Your task to perform on an android device: Is it going to rain tomorrow? Image 0: 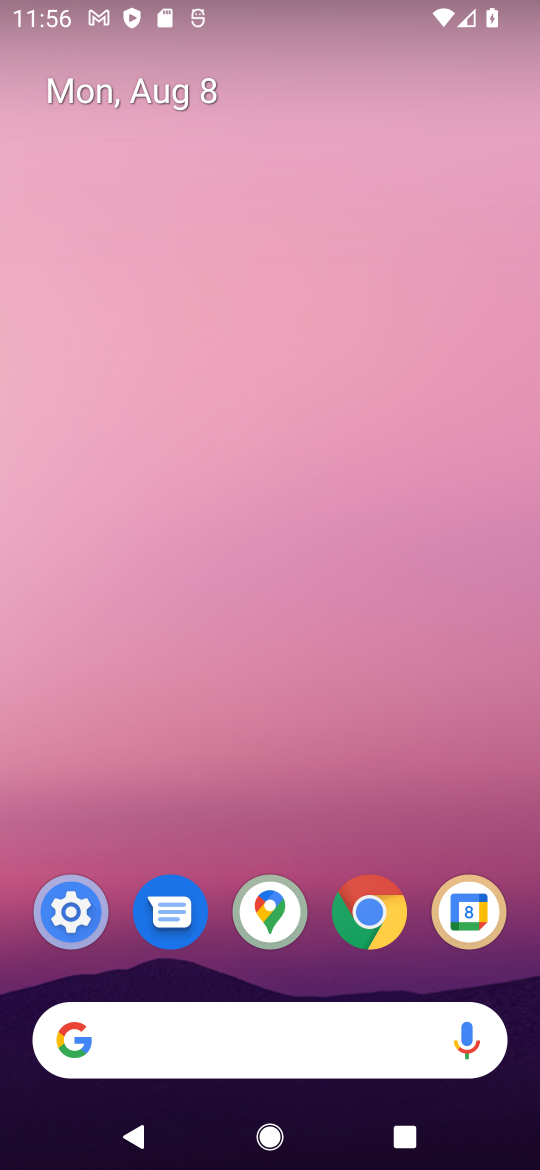
Step 0: click (196, 1028)
Your task to perform on an android device: Is it going to rain tomorrow? Image 1: 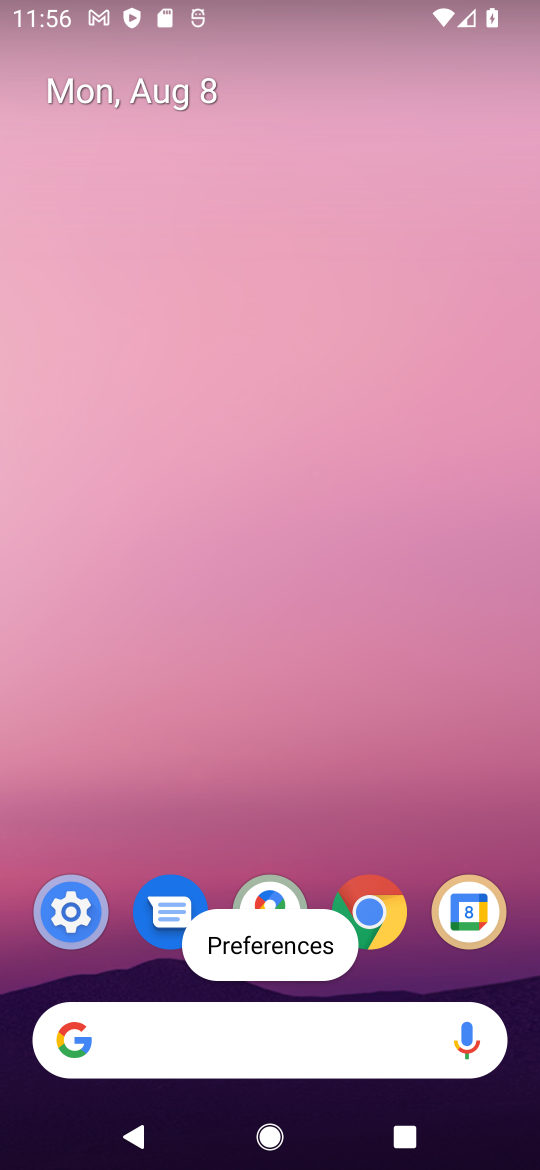
Step 1: click (265, 1048)
Your task to perform on an android device: Is it going to rain tomorrow? Image 2: 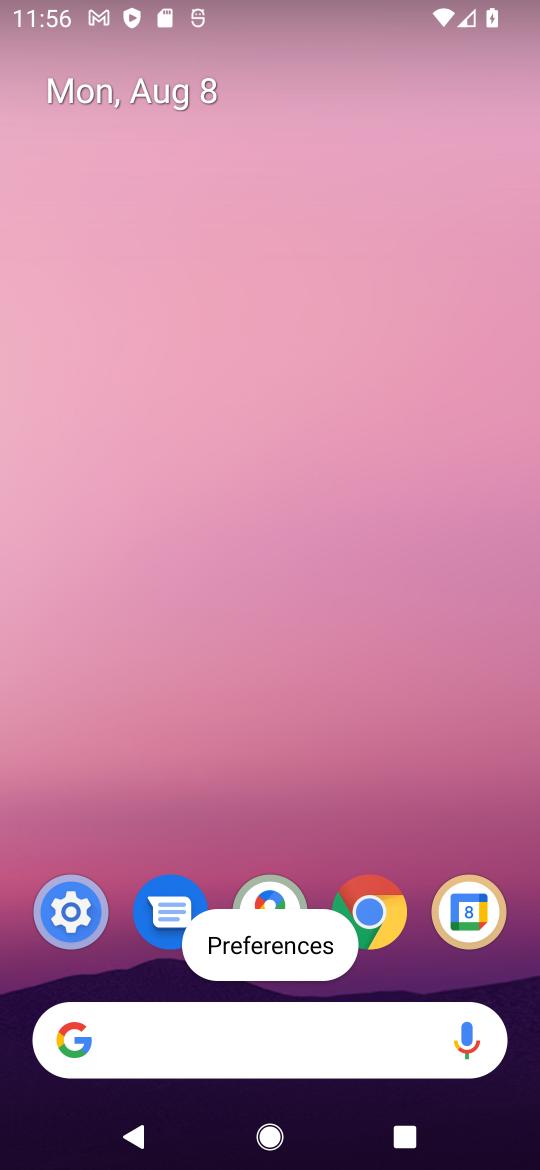
Step 2: click (266, 1043)
Your task to perform on an android device: Is it going to rain tomorrow? Image 3: 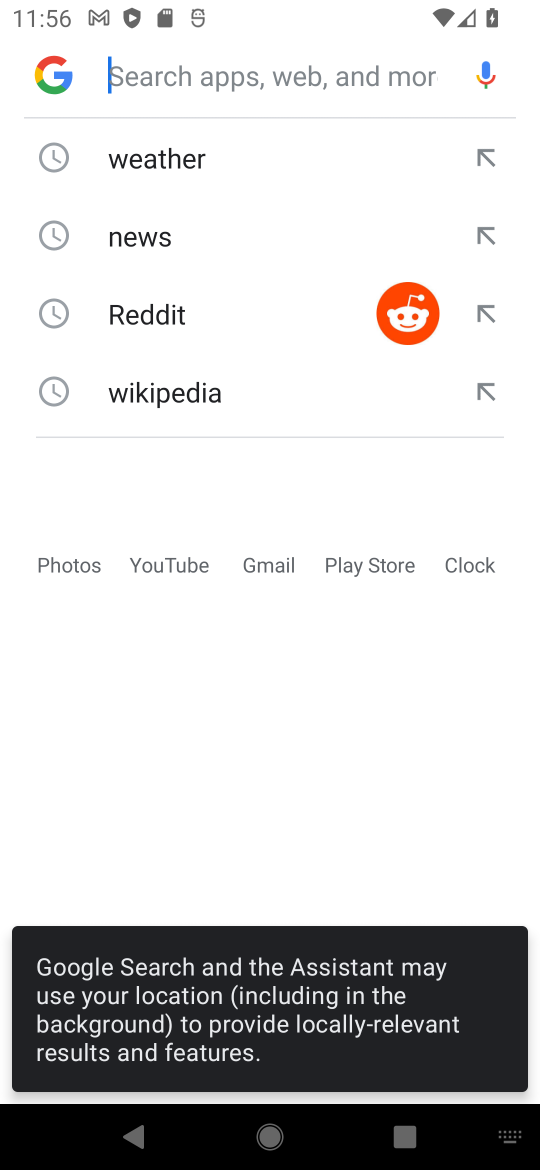
Step 3: click (151, 167)
Your task to perform on an android device: Is it going to rain tomorrow? Image 4: 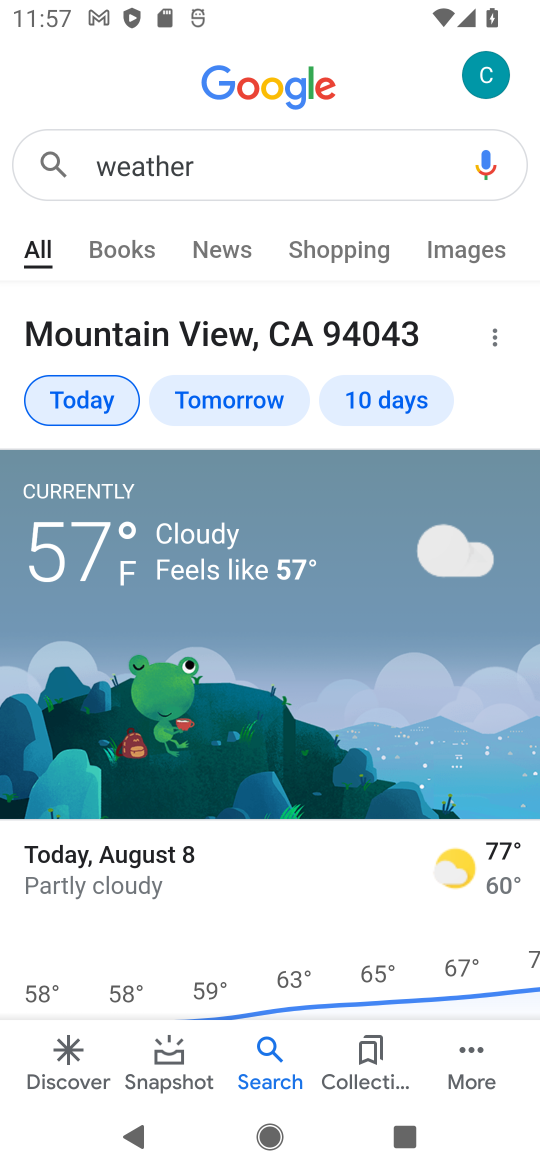
Step 4: click (217, 395)
Your task to perform on an android device: Is it going to rain tomorrow? Image 5: 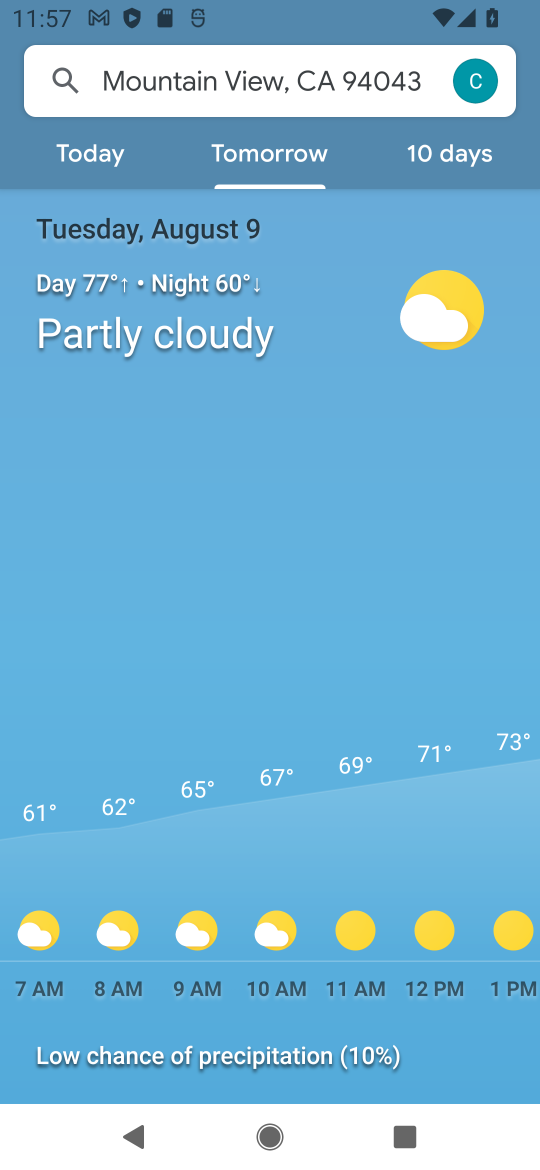
Step 5: task complete